Your task to perform on an android device: What is the recent news? Image 0: 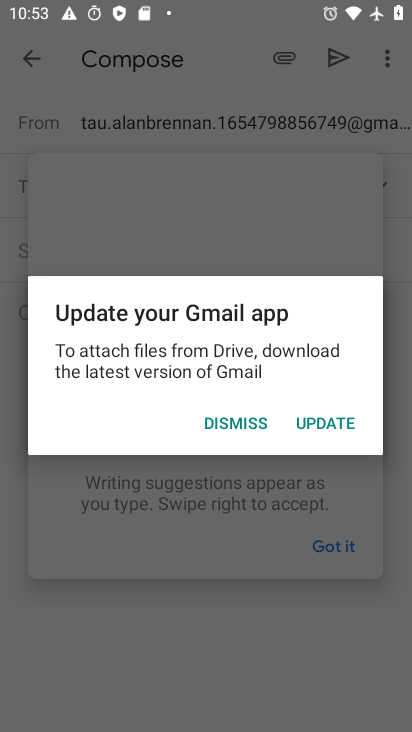
Step 0: press home button
Your task to perform on an android device: What is the recent news? Image 1: 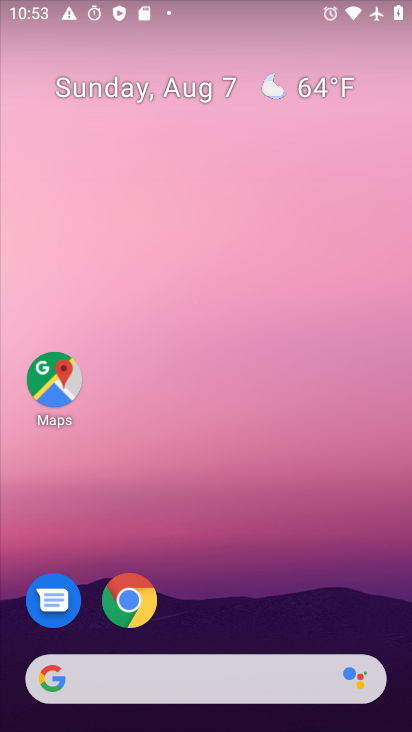
Step 1: drag from (252, 657) to (257, 216)
Your task to perform on an android device: What is the recent news? Image 2: 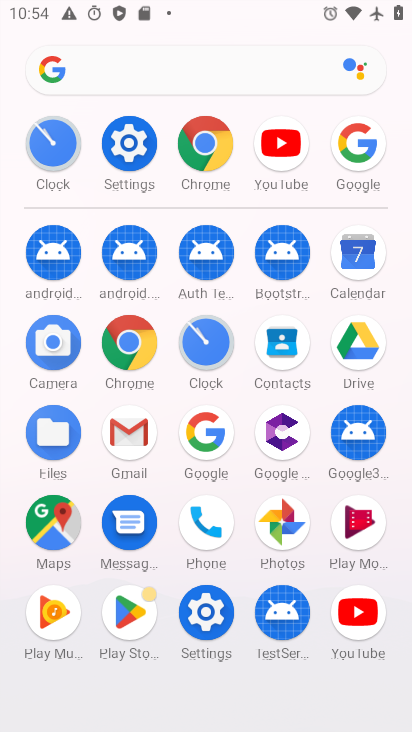
Step 2: click (209, 448)
Your task to perform on an android device: What is the recent news? Image 3: 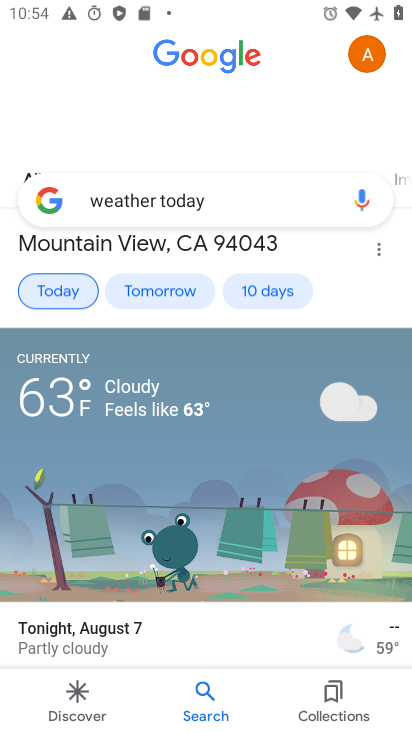
Step 3: click (288, 205)
Your task to perform on an android device: What is the recent news? Image 4: 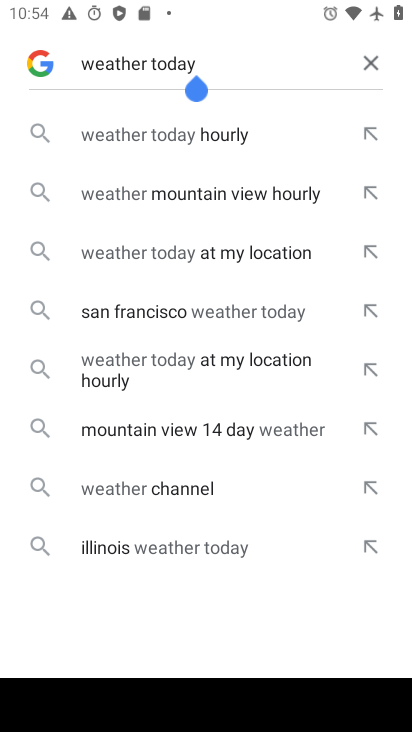
Step 4: click (366, 63)
Your task to perform on an android device: What is the recent news? Image 5: 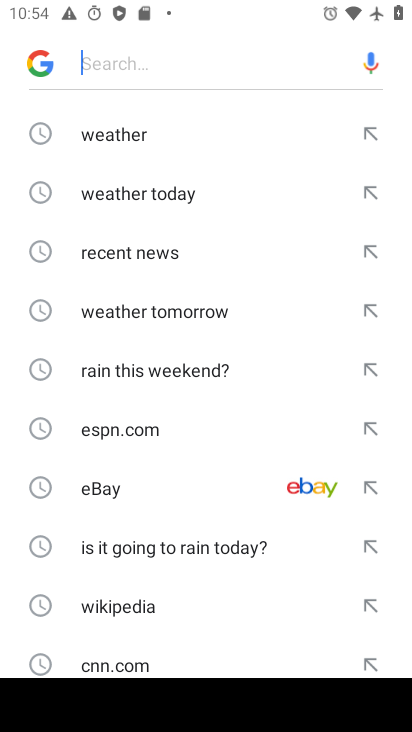
Step 5: click (142, 254)
Your task to perform on an android device: What is the recent news? Image 6: 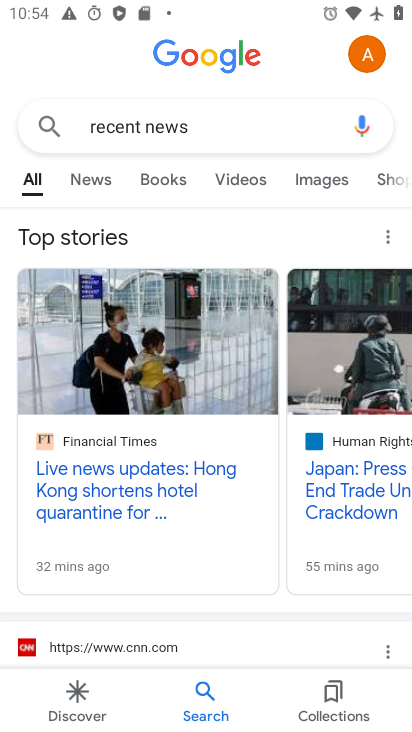
Step 6: click (96, 176)
Your task to perform on an android device: What is the recent news? Image 7: 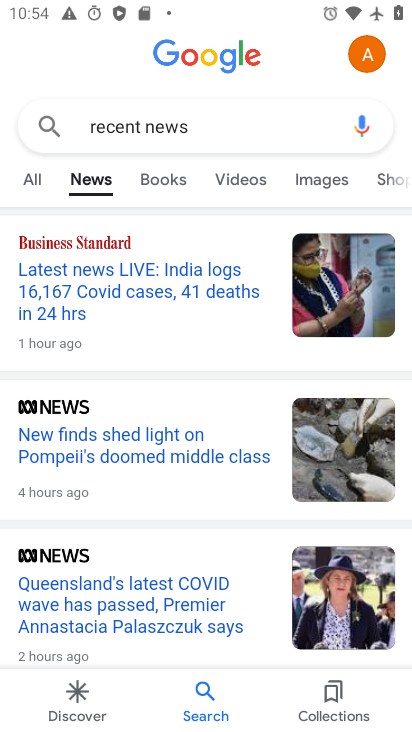
Step 7: task complete